Your task to perform on an android device: turn on wifi Image 0: 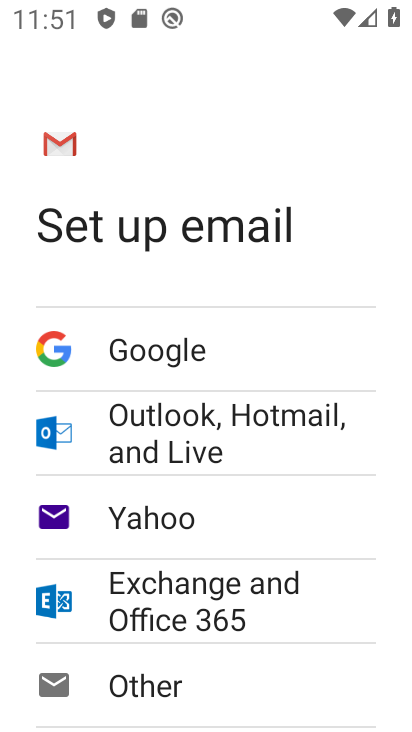
Step 0: press home button
Your task to perform on an android device: turn on wifi Image 1: 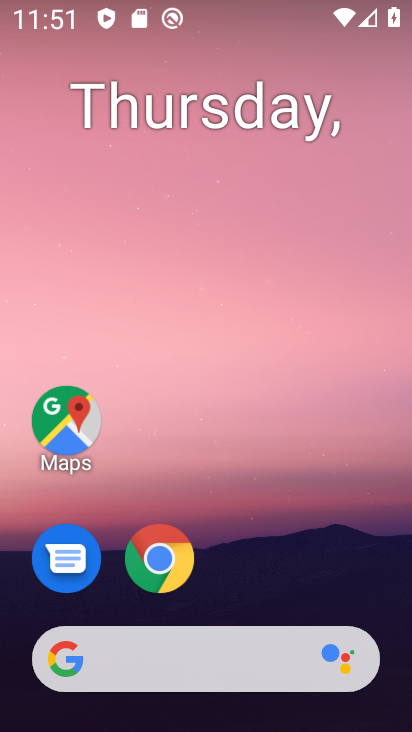
Step 1: drag from (368, 587) to (352, 123)
Your task to perform on an android device: turn on wifi Image 2: 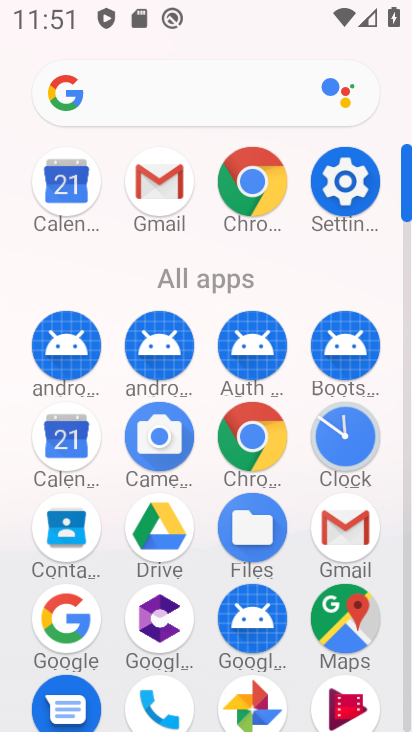
Step 2: click (349, 185)
Your task to perform on an android device: turn on wifi Image 3: 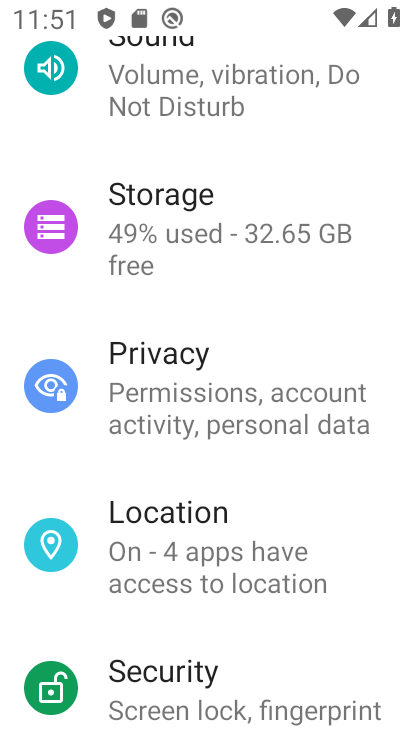
Step 3: drag from (361, 204) to (374, 264)
Your task to perform on an android device: turn on wifi Image 4: 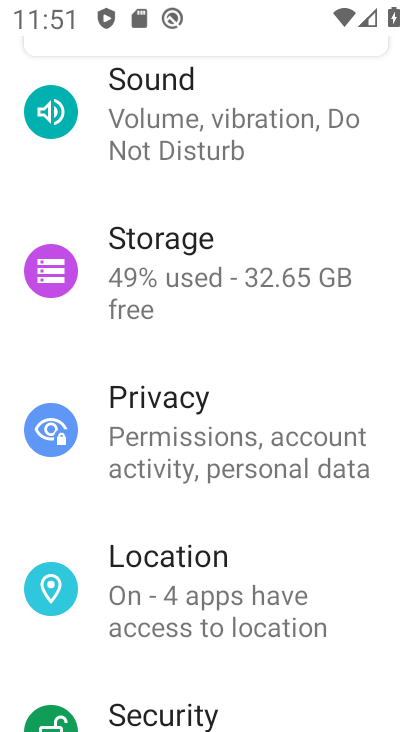
Step 4: drag from (374, 200) to (378, 274)
Your task to perform on an android device: turn on wifi Image 5: 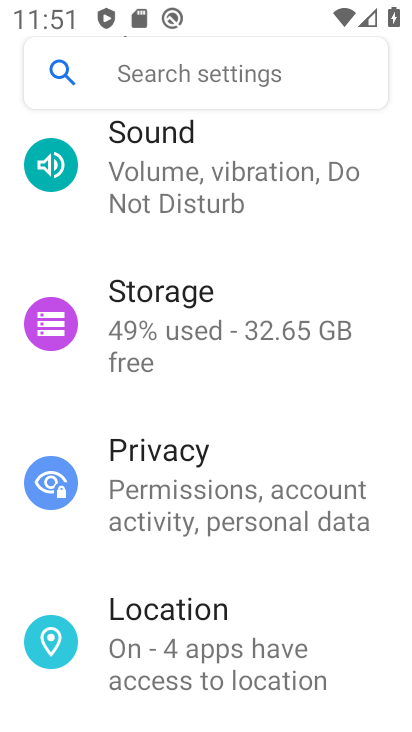
Step 5: drag from (381, 211) to (380, 274)
Your task to perform on an android device: turn on wifi Image 6: 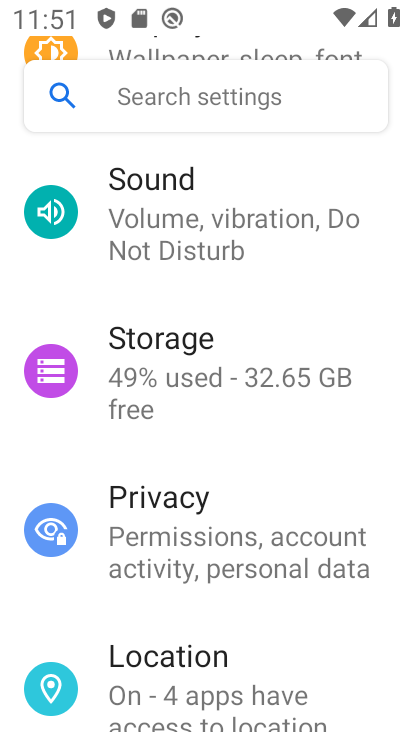
Step 6: drag from (371, 203) to (364, 284)
Your task to perform on an android device: turn on wifi Image 7: 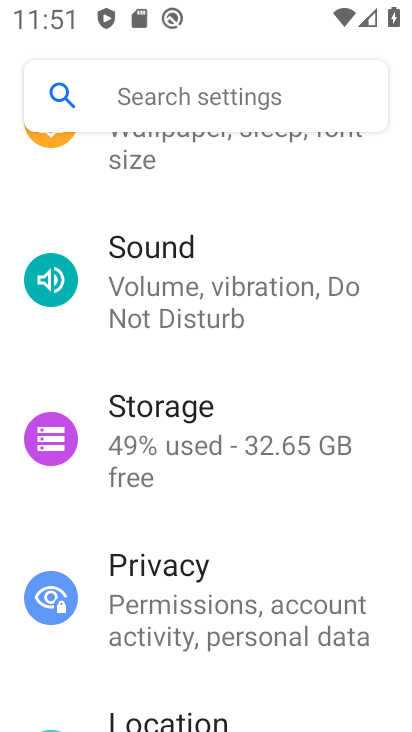
Step 7: drag from (365, 210) to (370, 283)
Your task to perform on an android device: turn on wifi Image 8: 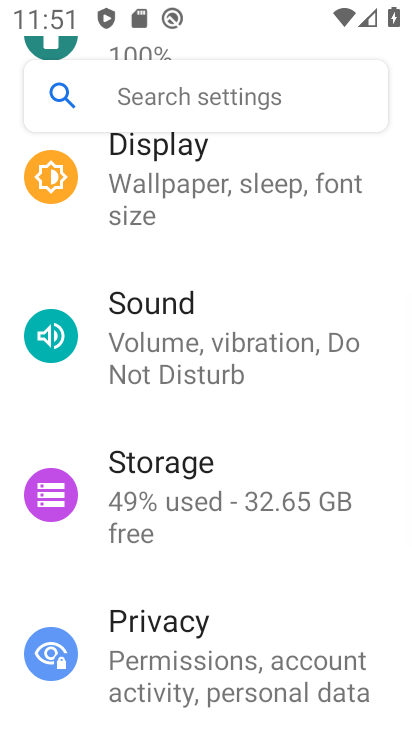
Step 8: drag from (366, 225) to (372, 294)
Your task to perform on an android device: turn on wifi Image 9: 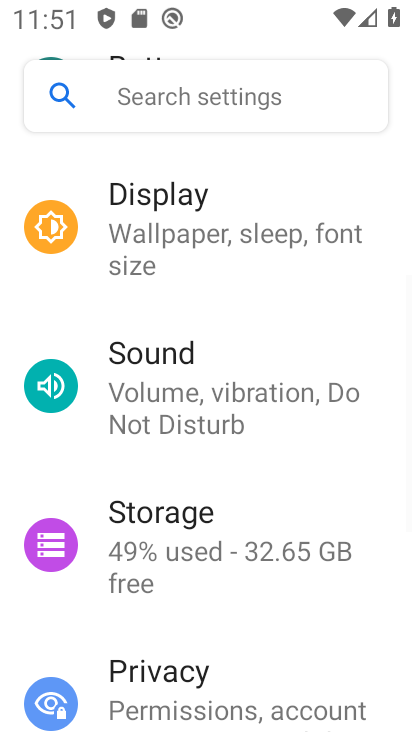
Step 9: drag from (375, 202) to (379, 274)
Your task to perform on an android device: turn on wifi Image 10: 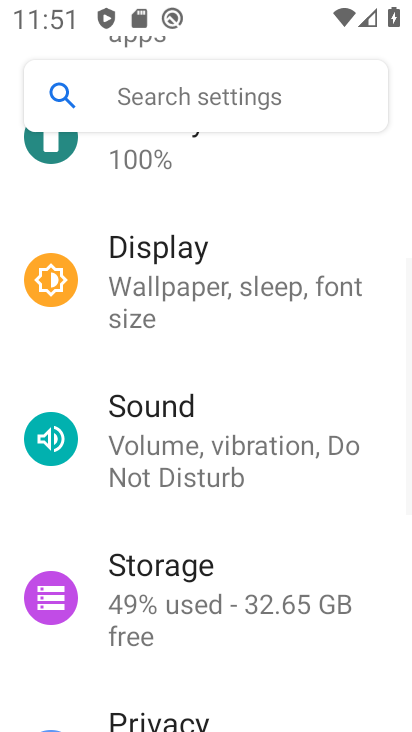
Step 10: drag from (368, 198) to (372, 281)
Your task to perform on an android device: turn on wifi Image 11: 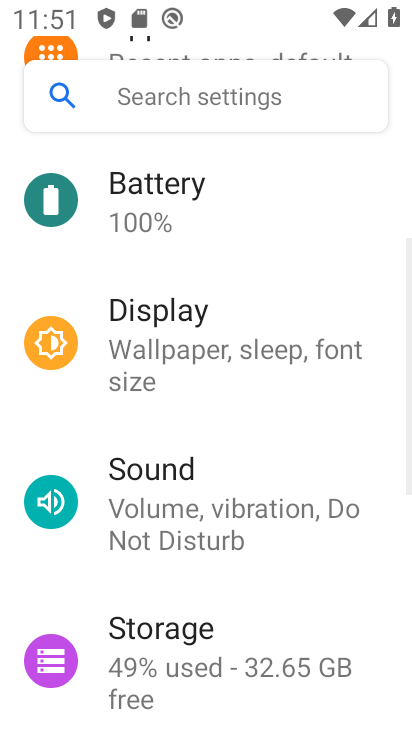
Step 11: drag from (365, 197) to (367, 270)
Your task to perform on an android device: turn on wifi Image 12: 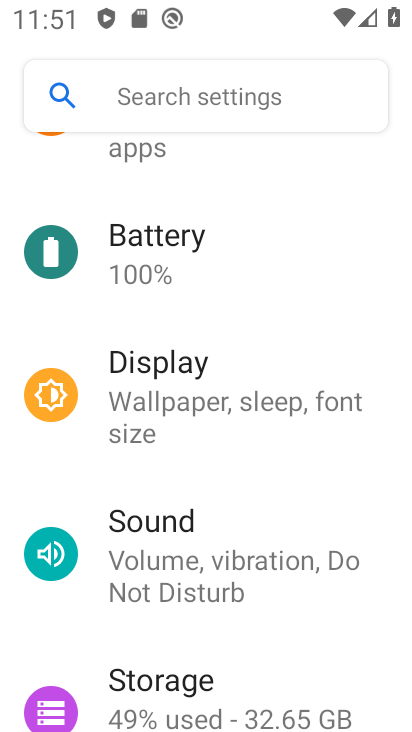
Step 12: drag from (355, 198) to (351, 303)
Your task to perform on an android device: turn on wifi Image 13: 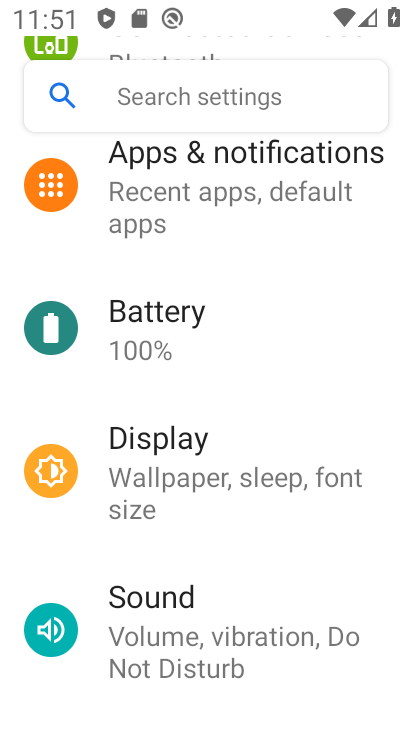
Step 13: drag from (357, 258) to (363, 351)
Your task to perform on an android device: turn on wifi Image 14: 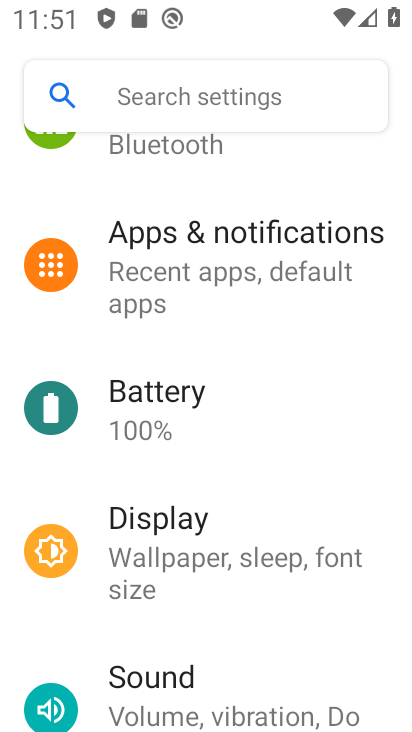
Step 14: drag from (370, 242) to (377, 326)
Your task to perform on an android device: turn on wifi Image 15: 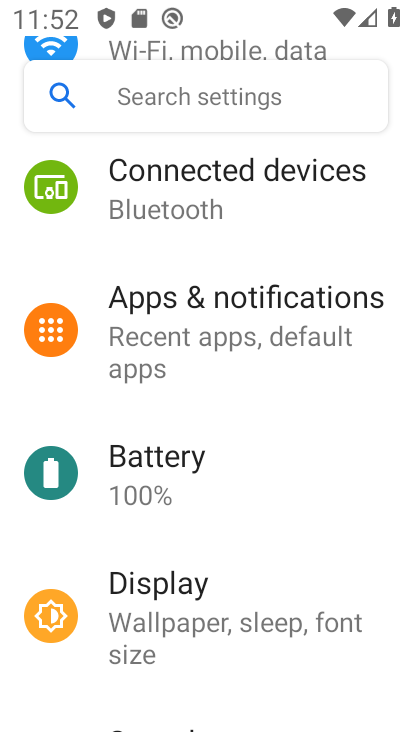
Step 15: drag from (366, 234) to (370, 333)
Your task to perform on an android device: turn on wifi Image 16: 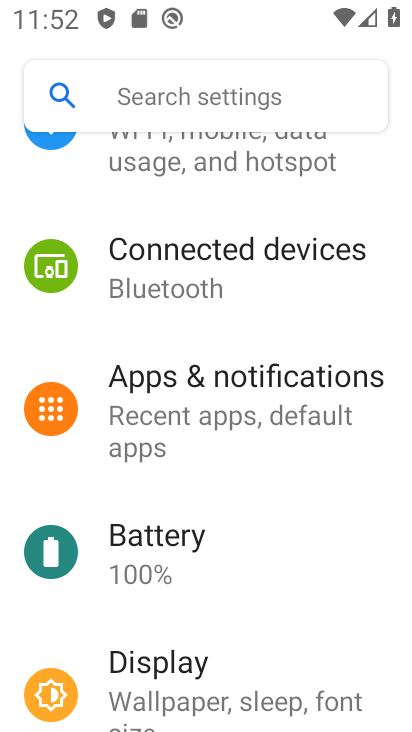
Step 16: drag from (374, 224) to (371, 343)
Your task to perform on an android device: turn on wifi Image 17: 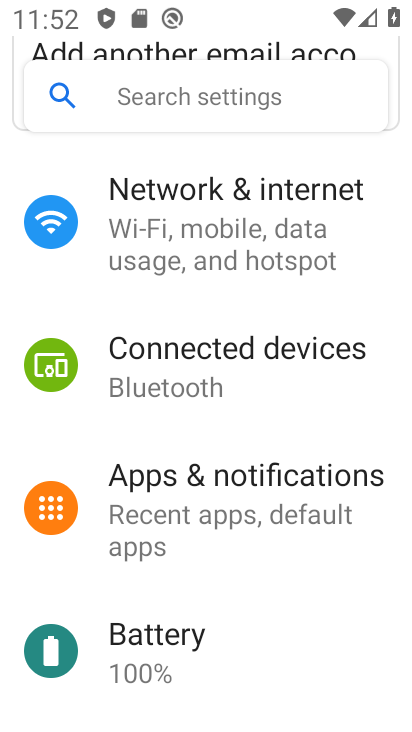
Step 17: click (326, 241)
Your task to perform on an android device: turn on wifi Image 18: 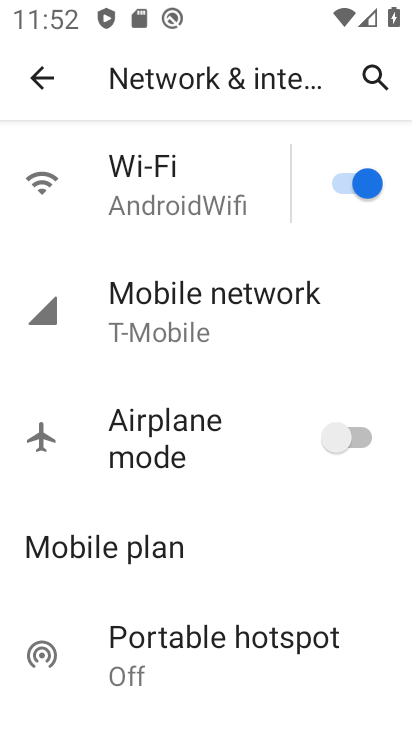
Step 18: task complete